Your task to perform on an android device: set default search engine in the chrome app Image 0: 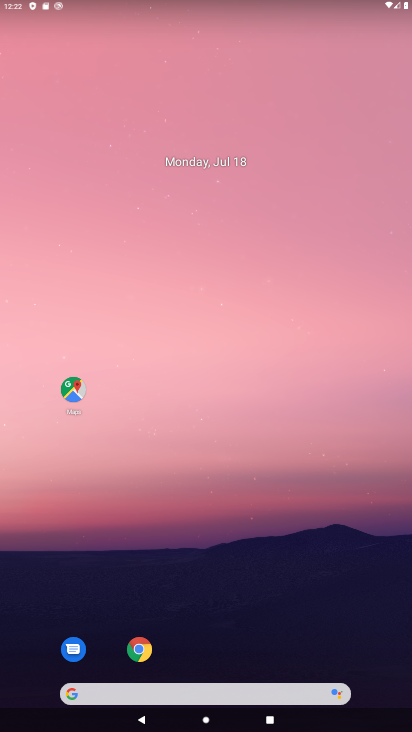
Step 0: click (143, 650)
Your task to perform on an android device: set default search engine in the chrome app Image 1: 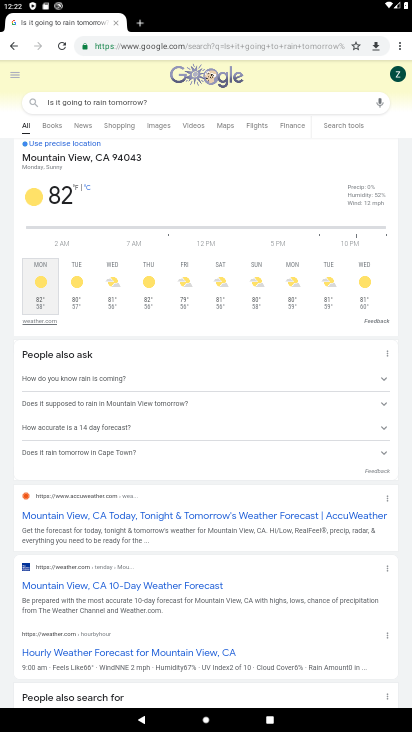
Step 1: click (404, 45)
Your task to perform on an android device: set default search engine in the chrome app Image 2: 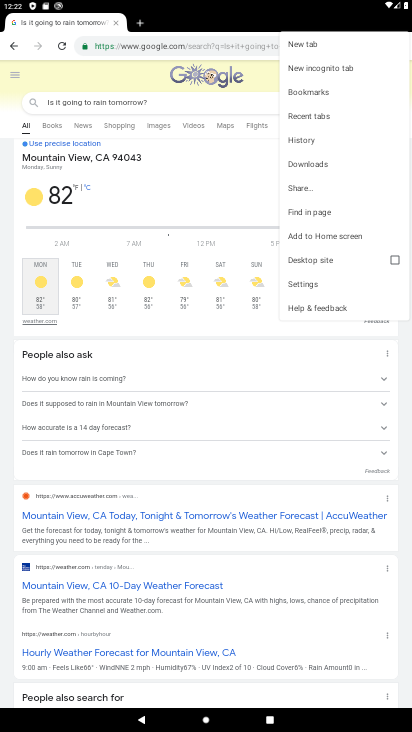
Step 2: click (342, 289)
Your task to perform on an android device: set default search engine in the chrome app Image 3: 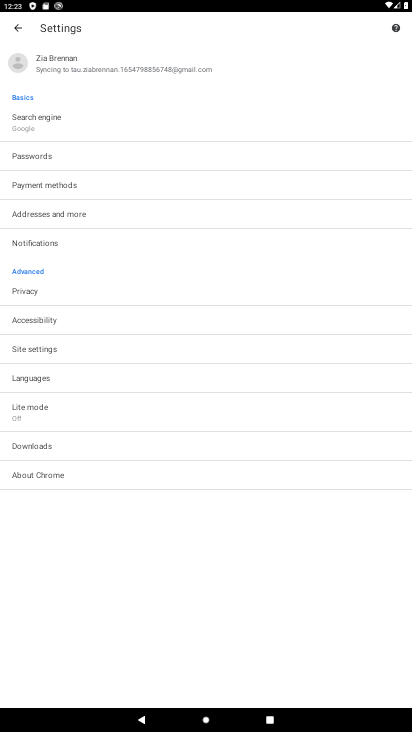
Step 3: click (86, 119)
Your task to perform on an android device: set default search engine in the chrome app Image 4: 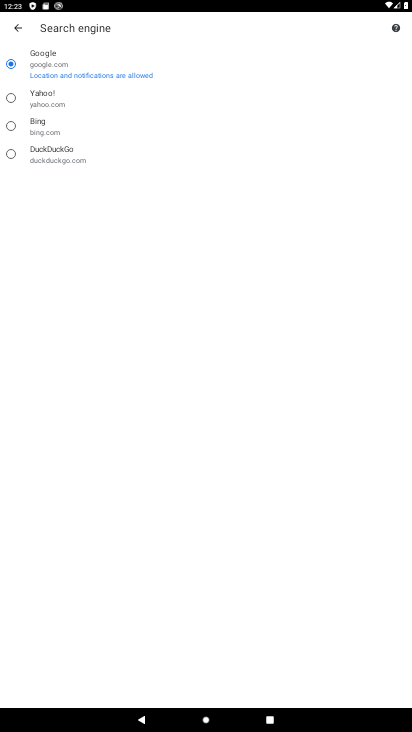
Step 4: click (63, 105)
Your task to perform on an android device: set default search engine in the chrome app Image 5: 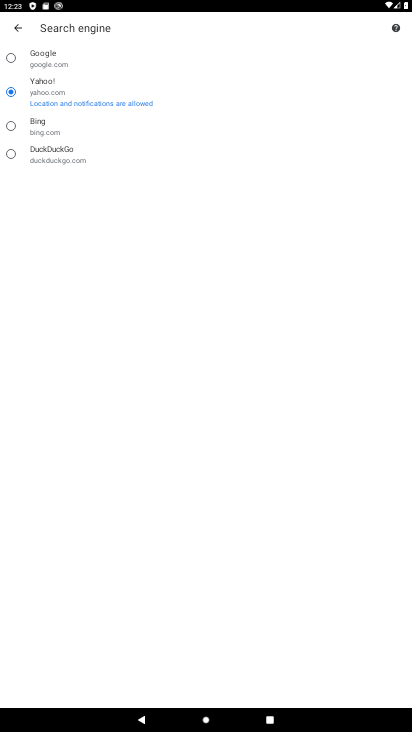
Step 5: task complete